Your task to perform on an android device: turn vacation reply on in the gmail app Image 0: 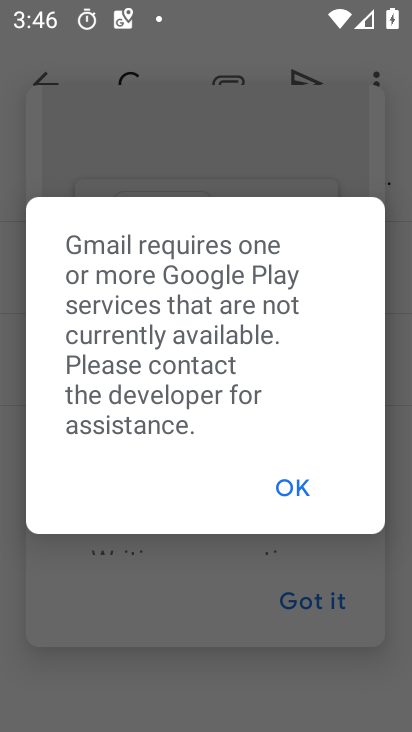
Step 0: press home button
Your task to perform on an android device: turn vacation reply on in the gmail app Image 1: 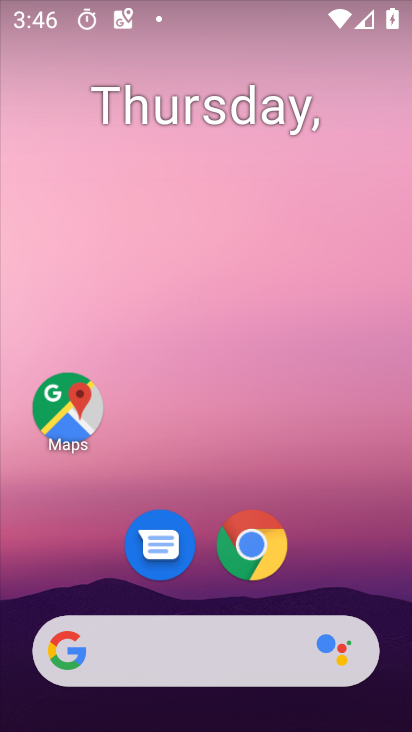
Step 1: drag from (231, 717) to (231, 133)
Your task to perform on an android device: turn vacation reply on in the gmail app Image 2: 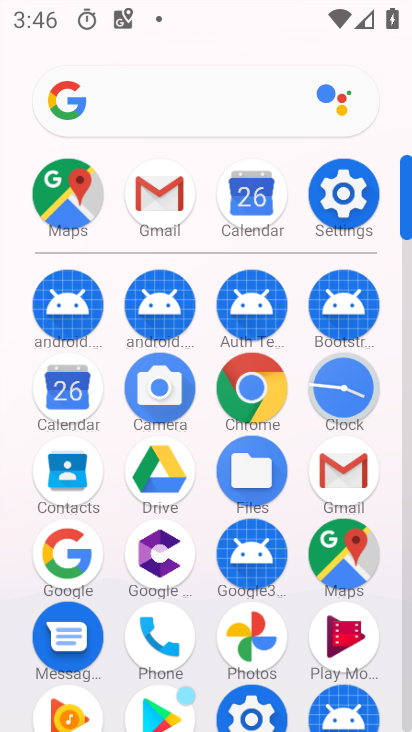
Step 2: click (339, 473)
Your task to perform on an android device: turn vacation reply on in the gmail app Image 3: 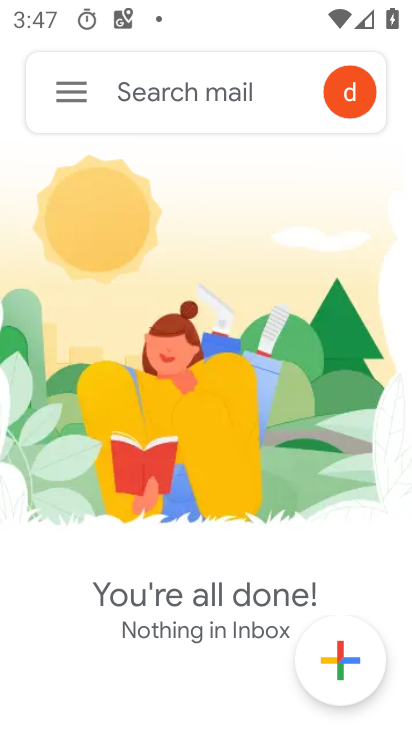
Step 3: click (72, 89)
Your task to perform on an android device: turn vacation reply on in the gmail app Image 4: 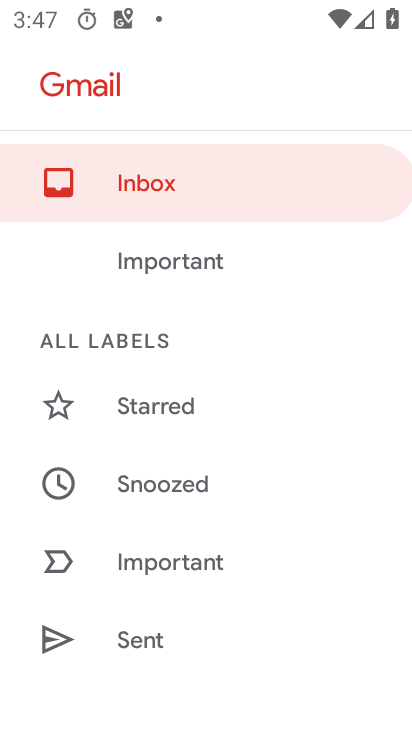
Step 4: drag from (172, 673) to (198, 128)
Your task to perform on an android device: turn vacation reply on in the gmail app Image 5: 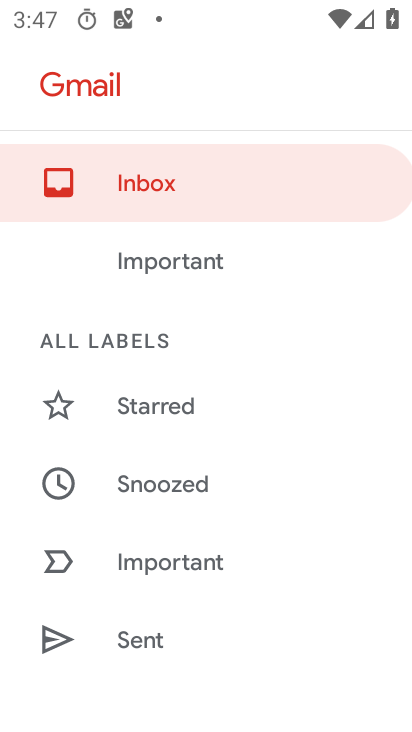
Step 5: drag from (162, 642) to (174, 184)
Your task to perform on an android device: turn vacation reply on in the gmail app Image 6: 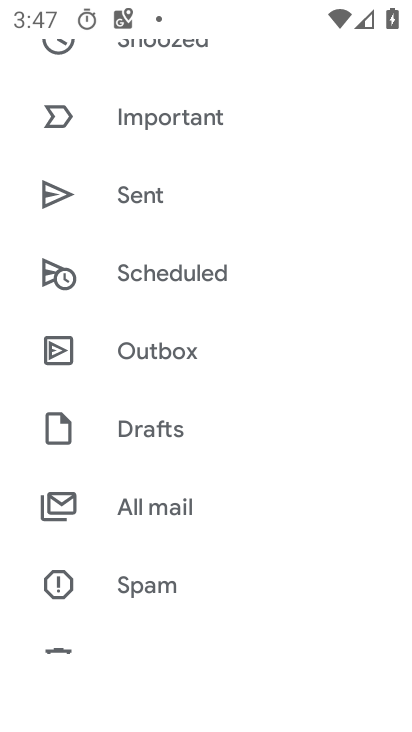
Step 6: drag from (167, 599) to (172, 183)
Your task to perform on an android device: turn vacation reply on in the gmail app Image 7: 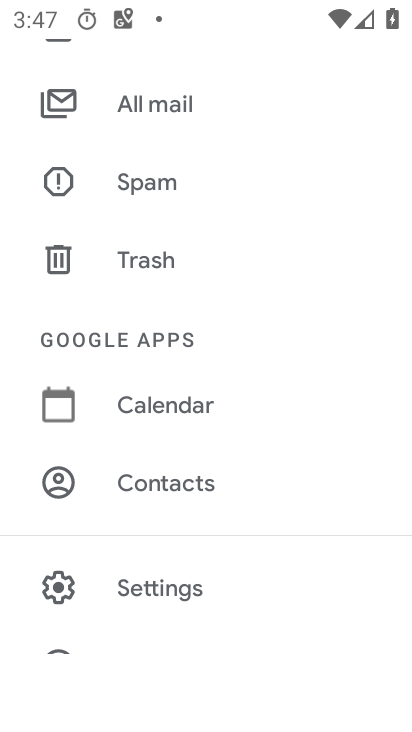
Step 7: click (165, 582)
Your task to perform on an android device: turn vacation reply on in the gmail app Image 8: 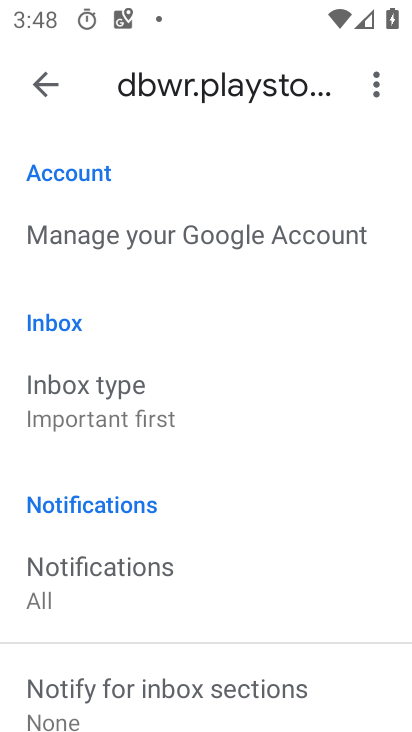
Step 8: drag from (153, 659) to (174, 280)
Your task to perform on an android device: turn vacation reply on in the gmail app Image 9: 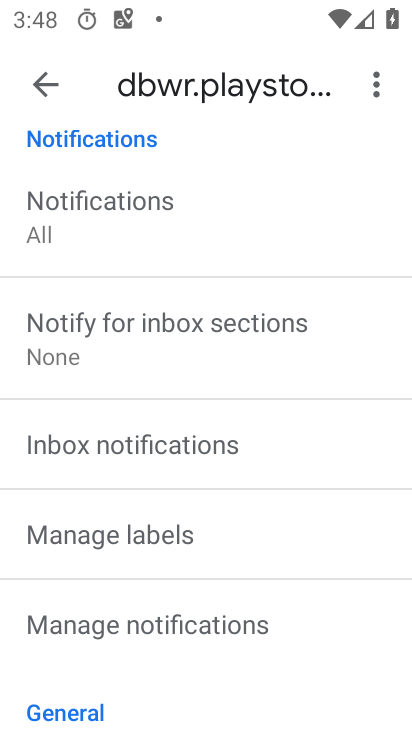
Step 9: drag from (160, 663) to (170, 276)
Your task to perform on an android device: turn vacation reply on in the gmail app Image 10: 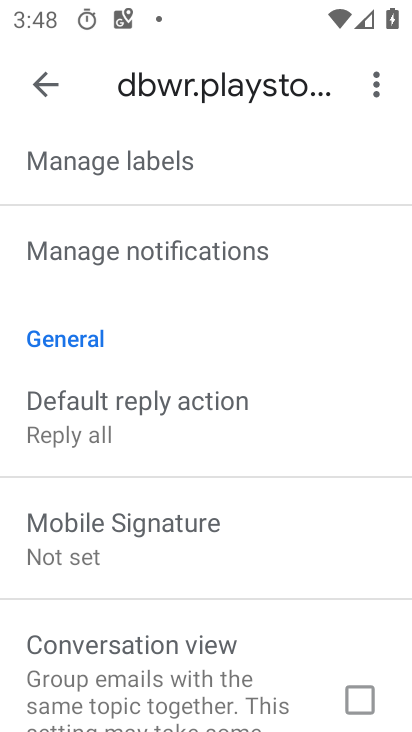
Step 10: drag from (142, 698) to (147, 228)
Your task to perform on an android device: turn vacation reply on in the gmail app Image 11: 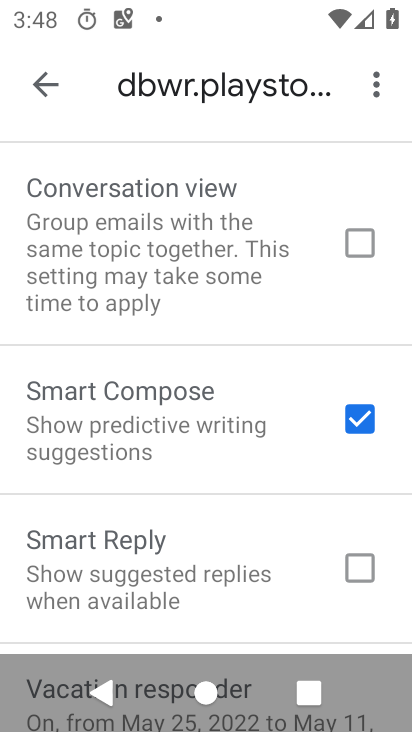
Step 11: drag from (137, 619) to (142, 211)
Your task to perform on an android device: turn vacation reply on in the gmail app Image 12: 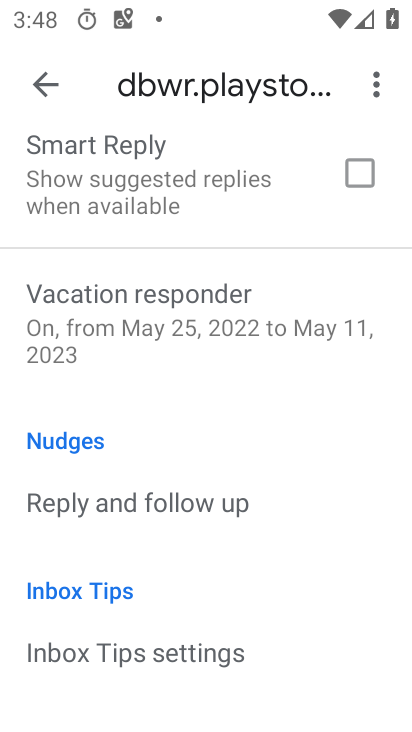
Step 12: click (135, 310)
Your task to perform on an android device: turn vacation reply on in the gmail app Image 13: 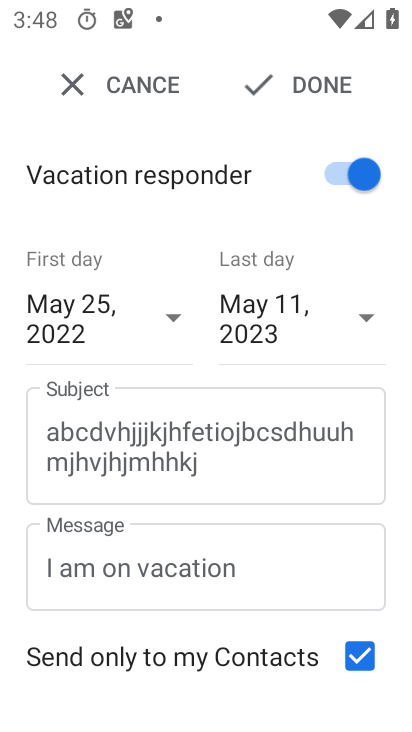
Step 13: task complete